Your task to perform on an android device: choose inbox layout in the gmail app Image 0: 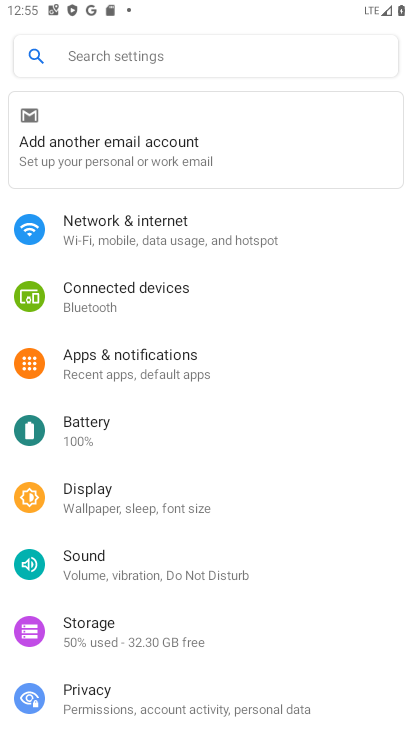
Step 0: press home button
Your task to perform on an android device: choose inbox layout in the gmail app Image 1: 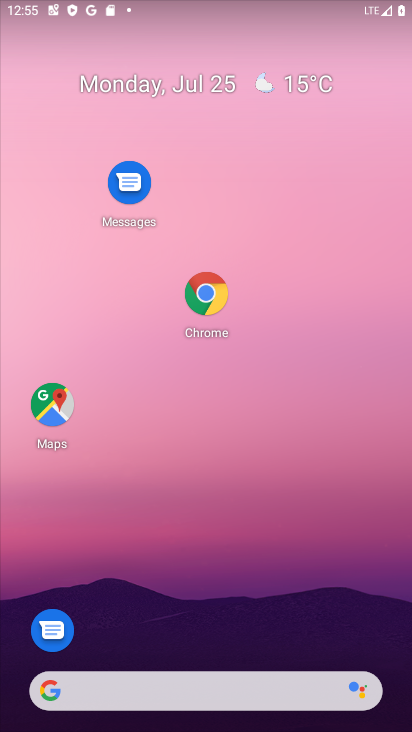
Step 1: drag from (278, 637) to (259, 100)
Your task to perform on an android device: choose inbox layout in the gmail app Image 2: 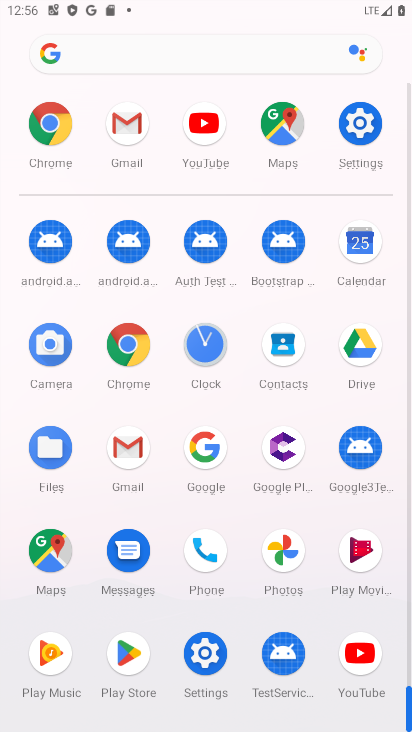
Step 2: click (134, 444)
Your task to perform on an android device: choose inbox layout in the gmail app Image 3: 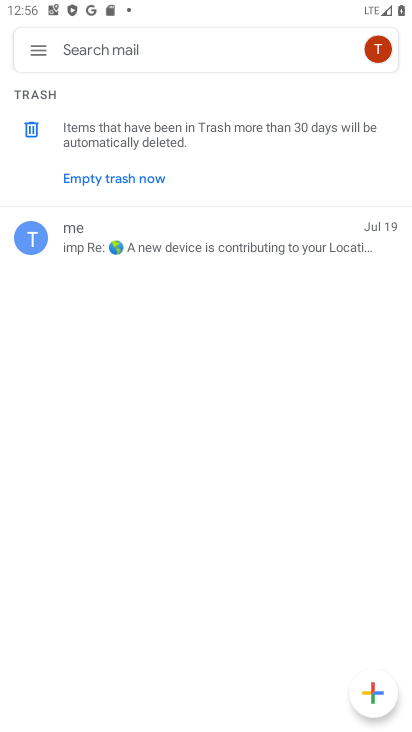
Step 3: click (42, 56)
Your task to perform on an android device: choose inbox layout in the gmail app Image 4: 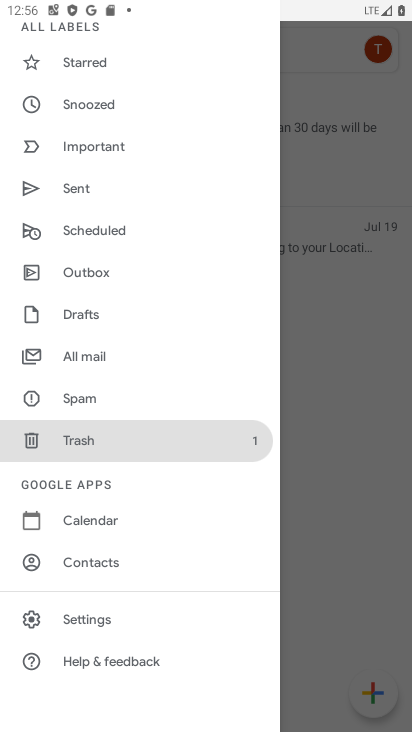
Step 4: click (77, 623)
Your task to perform on an android device: choose inbox layout in the gmail app Image 5: 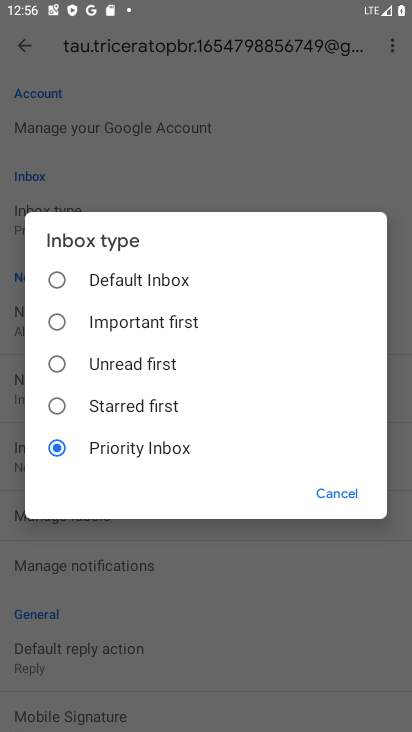
Step 5: click (113, 289)
Your task to perform on an android device: choose inbox layout in the gmail app Image 6: 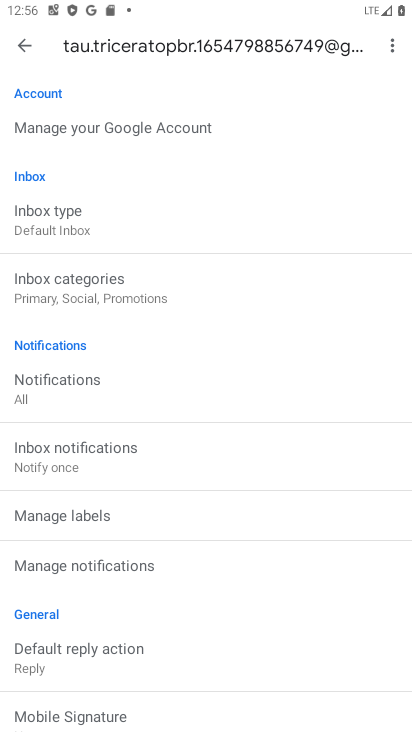
Step 6: task complete